Your task to perform on an android device: Turn on the flashlight Image 0: 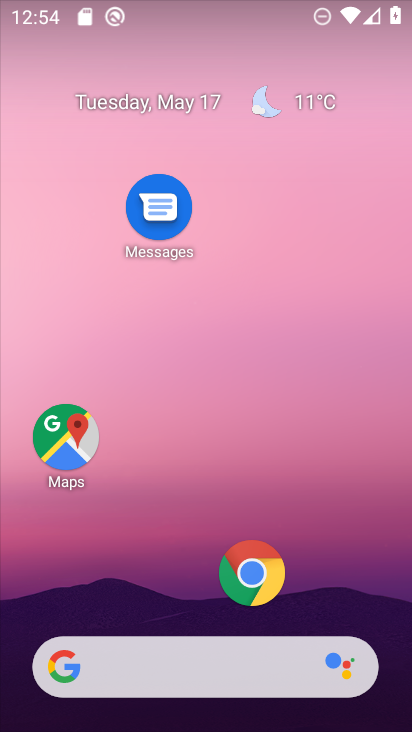
Step 0: drag from (204, 603) to (262, 73)
Your task to perform on an android device: Turn on the flashlight Image 1: 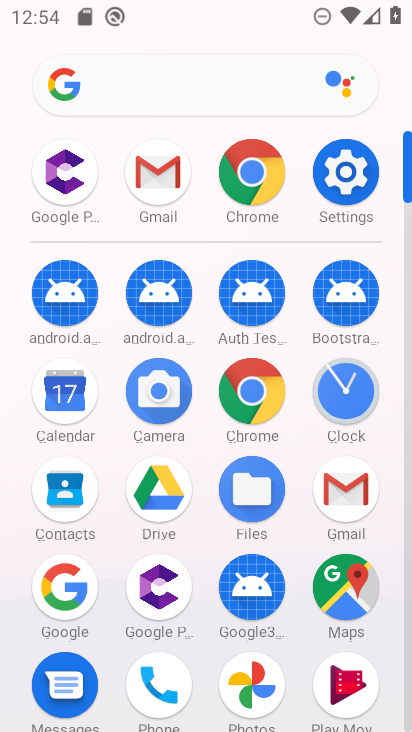
Step 1: click (347, 171)
Your task to perform on an android device: Turn on the flashlight Image 2: 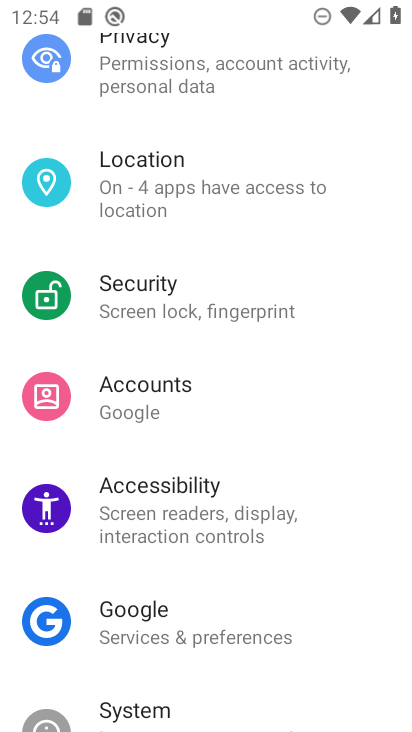
Step 2: drag from (252, 150) to (296, 638)
Your task to perform on an android device: Turn on the flashlight Image 3: 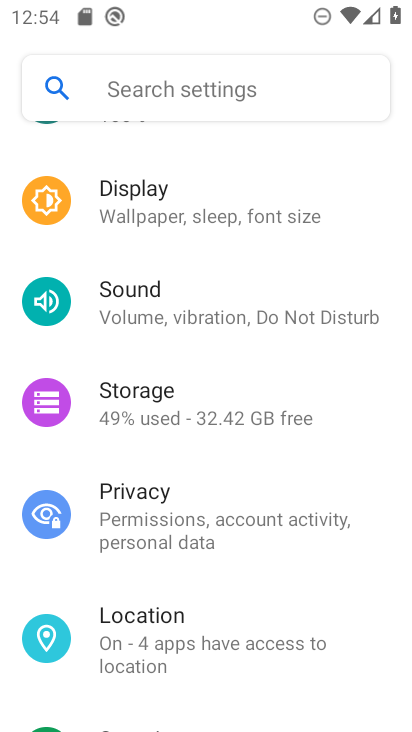
Step 3: click (141, 94)
Your task to perform on an android device: Turn on the flashlight Image 4: 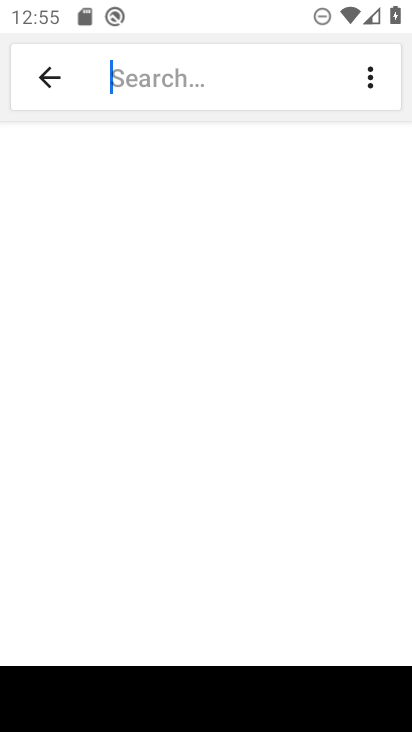
Step 4: type "flashlight"
Your task to perform on an android device: Turn on the flashlight Image 5: 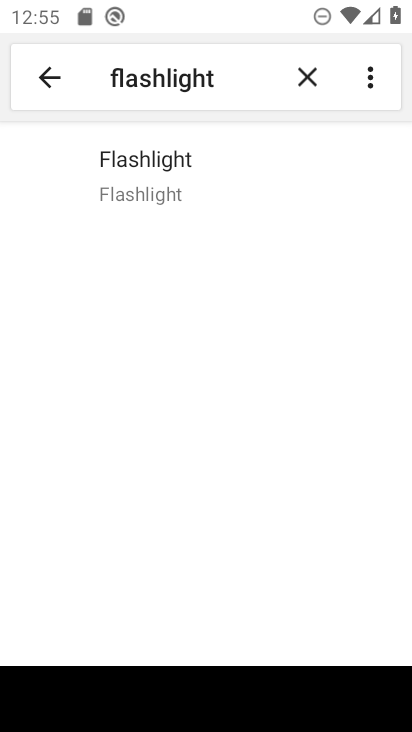
Step 5: click (152, 183)
Your task to perform on an android device: Turn on the flashlight Image 6: 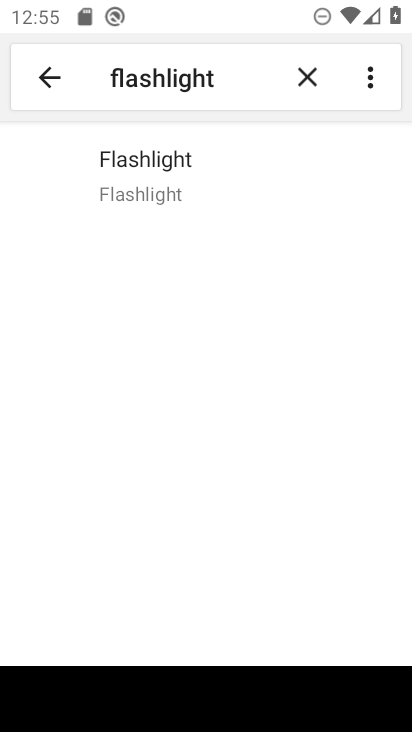
Step 6: click (176, 180)
Your task to perform on an android device: Turn on the flashlight Image 7: 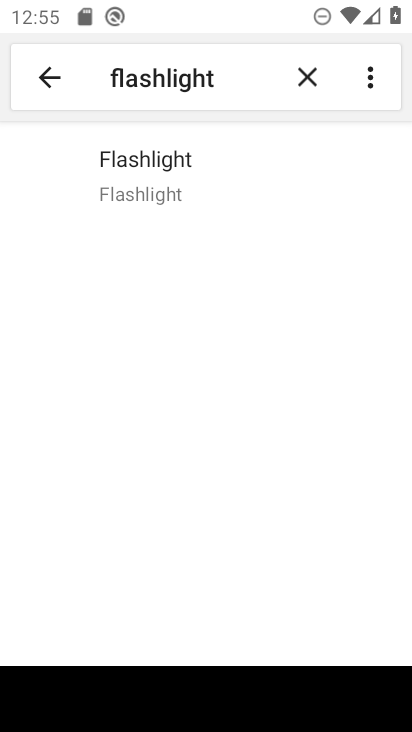
Step 7: task complete